Your task to perform on an android device: Go to privacy settings Image 0: 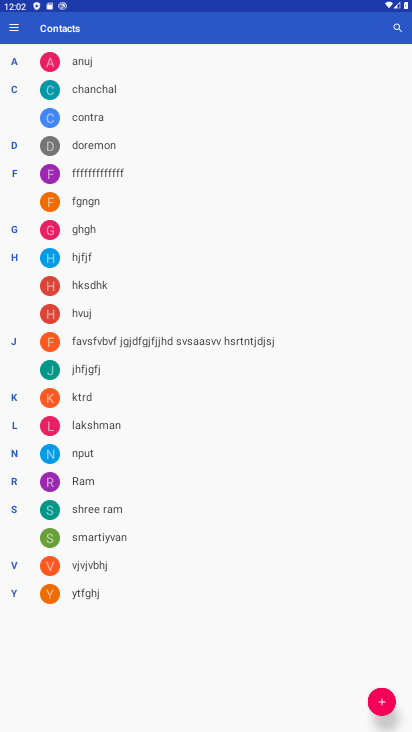
Step 0: drag from (192, 610) to (260, 357)
Your task to perform on an android device: Go to privacy settings Image 1: 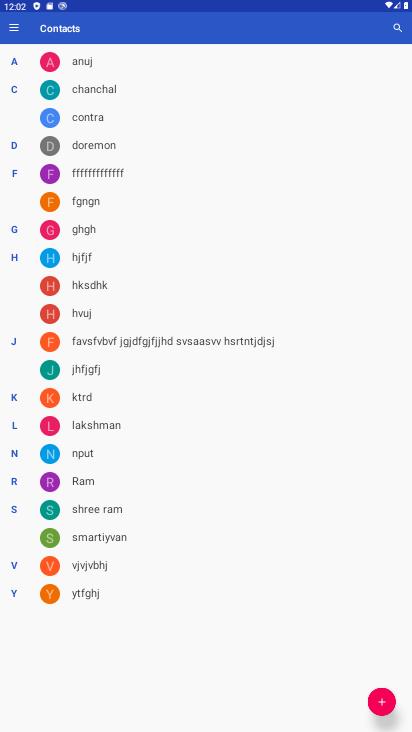
Step 1: press home button
Your task to perform on an android device: Go to privacy settings Image 2: 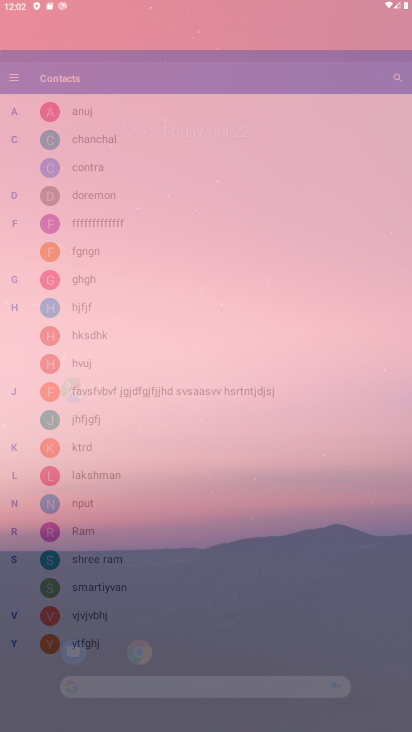
Step 2: drag from (252, 530) to (235, 231)
Your task to perform on an android device: Go to privacy settings Image 3: 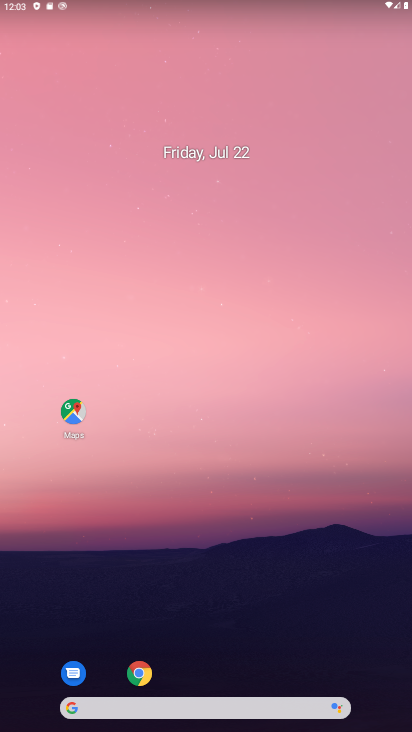
Step 3: drag from (205, 620) to (238, 95)
Your task to perform on an android device: Go to privacy settings Image 4: 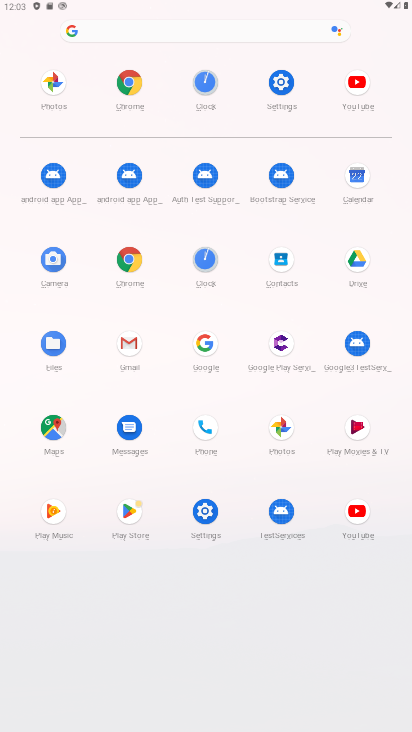
Step 4: click (281, 81)
Your task to perform on an android device: Go to privacy settings Image 5: 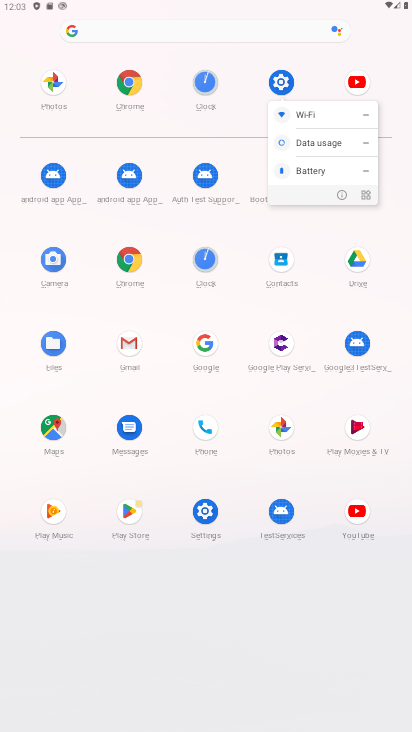
Step 5: click (339, 193)
Your task to perform on an android device: Go to privacy settings Image 6: 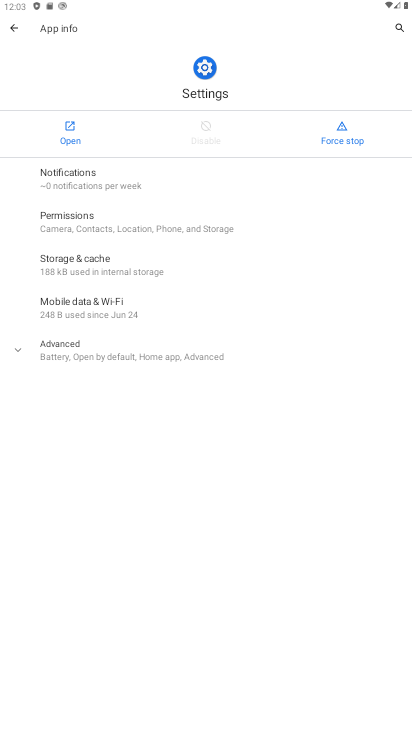
Step 6: click (77, 141)
Your task to perform on an android device: Go to privacy settings Image 7: 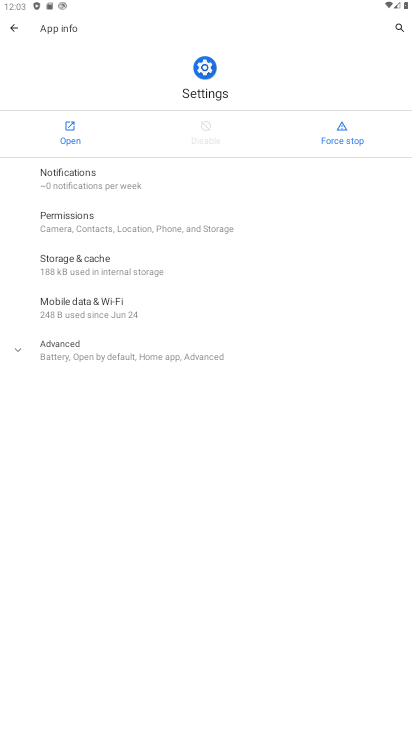
Step 7: click (71, 136)
Your task to perform on an android device: Go to privacy settings Image 8: 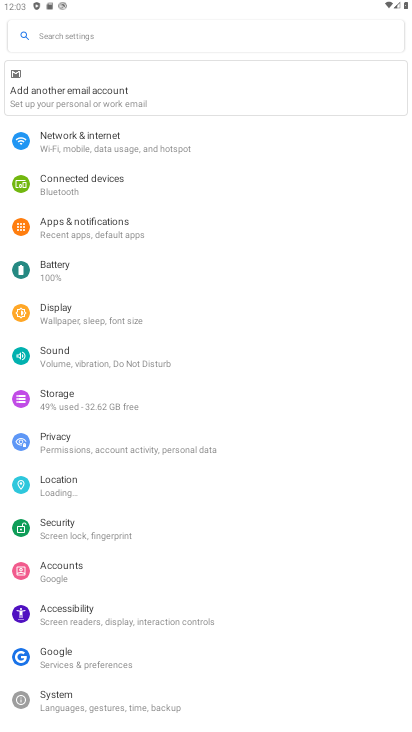
Step 8: click (79, 443)
Your task to perform on an android device: Go to privacy settings Image 9: 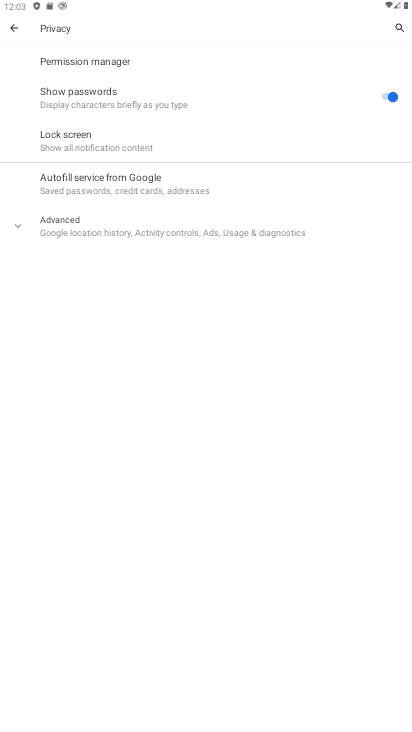
Step 9: task complete